Your task to perform on an android device: Is it going to rain this weekend? Image 0: 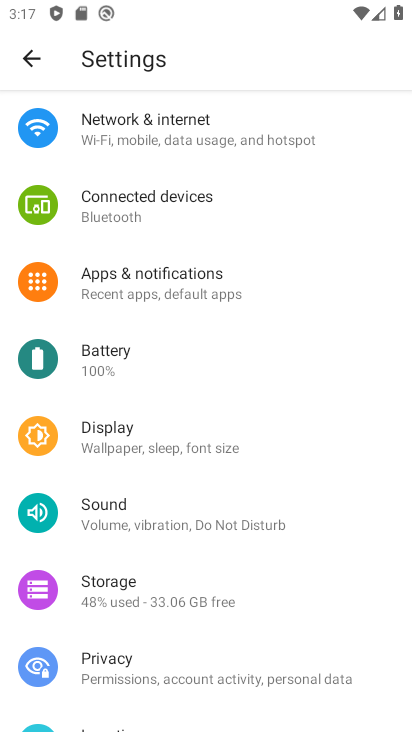
Step 0: press home button
Your task to perform on an android device: Is it going to rain this weekend? Image 1: 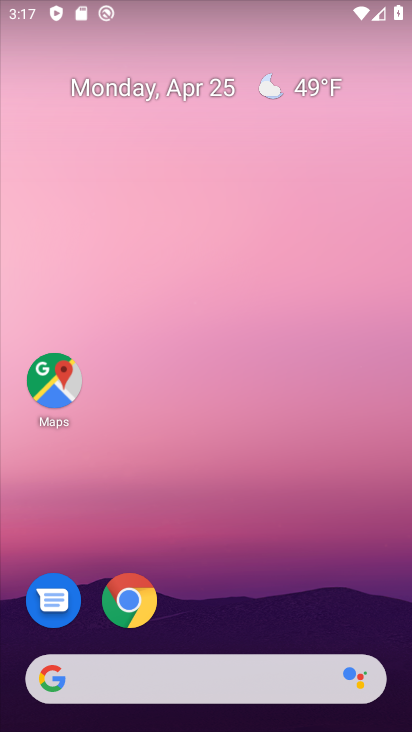
Step 1: click (278, 83)
Your task to perform on an android device: Is it going to rain this weekend? Image 2: 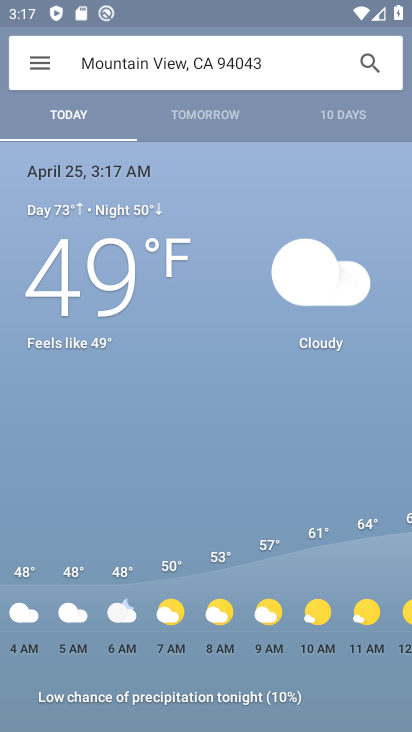
Step 2: click (341, 112)
Your task to perform on an android device: Is it going to rain this weekend? Image 3: 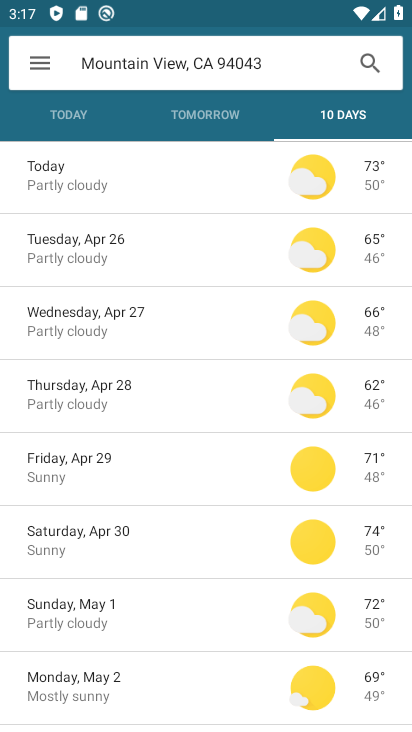
Step 3: click (181, 509)
Your task to perform on an android device: Is it going to rain this weekend? Image 4: 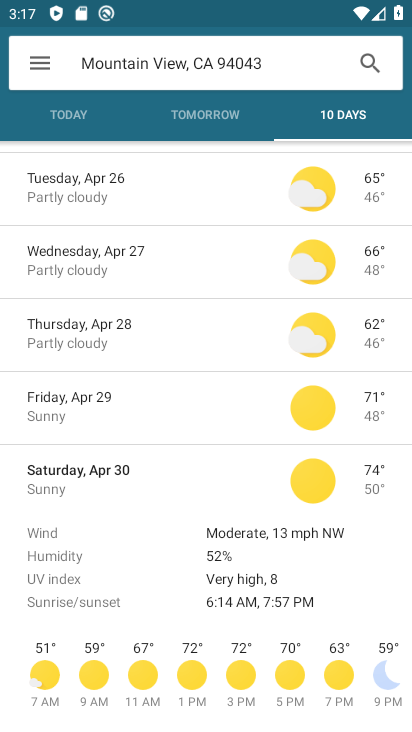
Step 4: task complete